Your task to perform on an android device: add a contact Image 0: 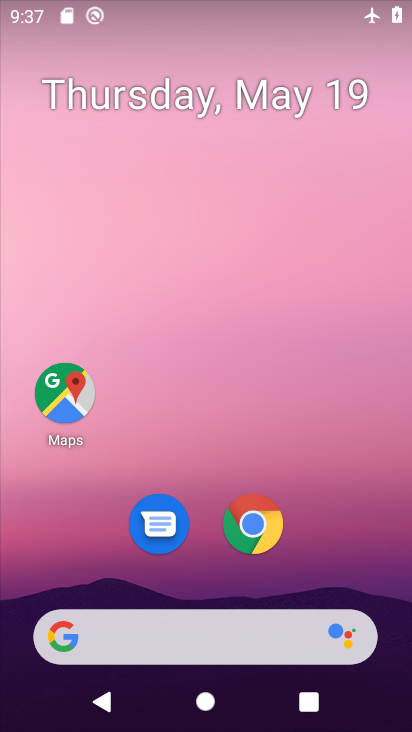
Step 0: drag from (343, 482) to (289, 25)
Your task to perform on an android device: add a contact Image 1: 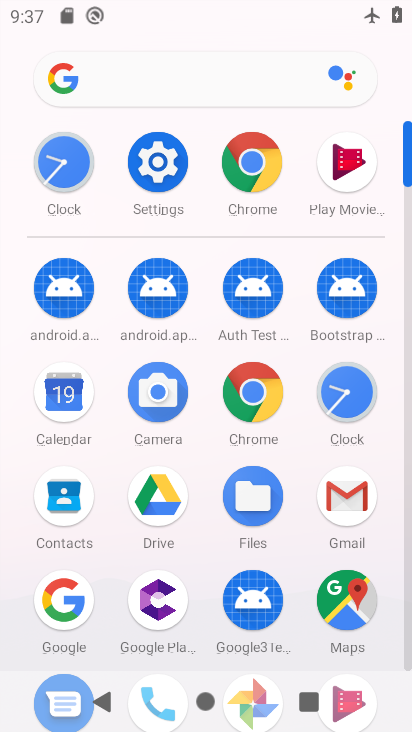
Step 1: click (54, 486)
Your task to perform on an android device: add a contact Image 2: 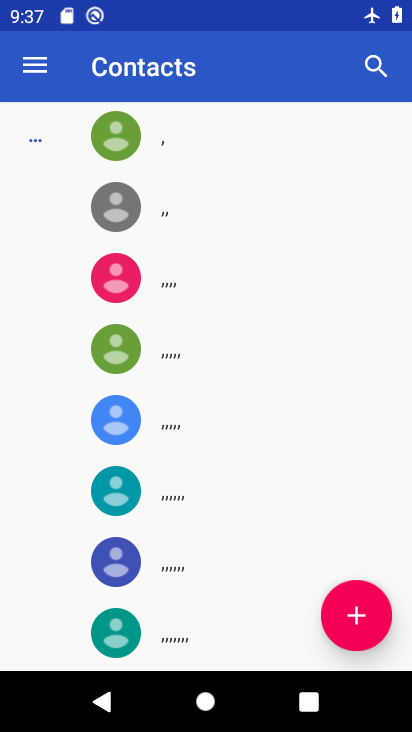
Step 2: click (343, 606)
Your task to perform on an android device: add a contact Image 3: 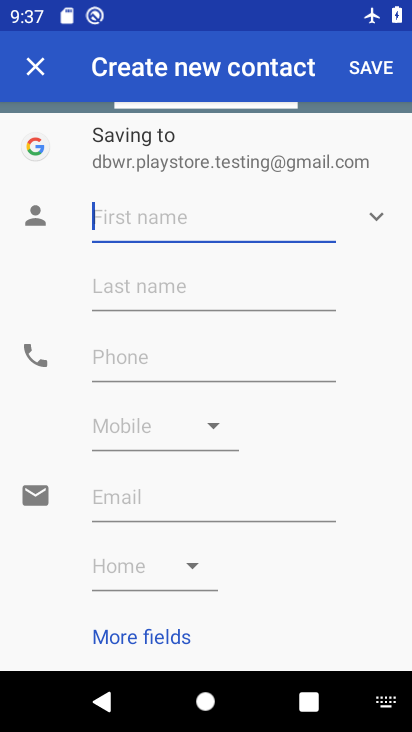
Step 3: type "Ghanshyam"
Your task to perform on an android device: add a contact Image 4: 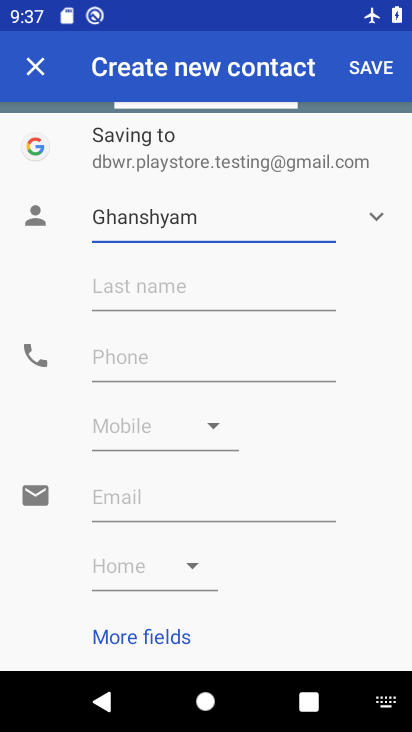
Step 4: click (300, 367)
Your task to perform on an android device: add a contact Image 5: 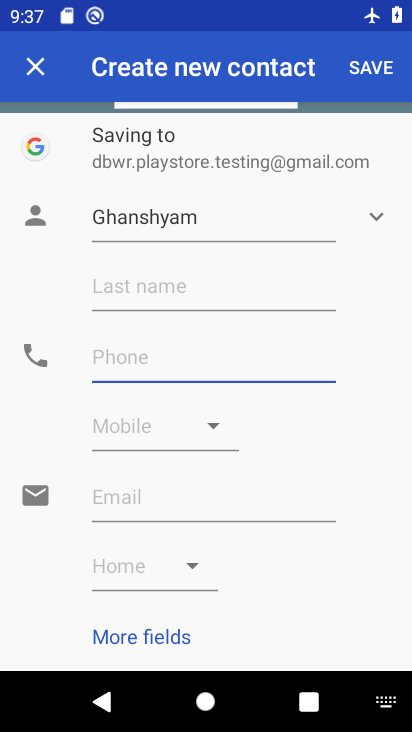
Step 5: type "0221133557799"
Your task to perform on an android device: add a contact Image 6: 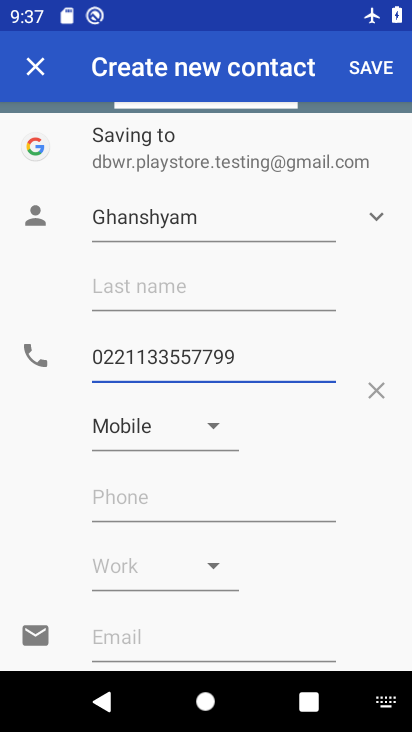
Step 6: click (389, 67)
Your task to perform on an android device: add a contact Image 7: 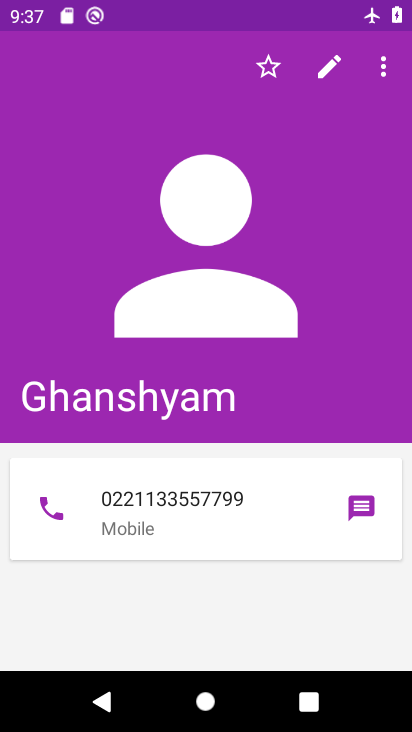
Step 7: task complete